Your task to perform on an android device: Open the web browser Image 0: 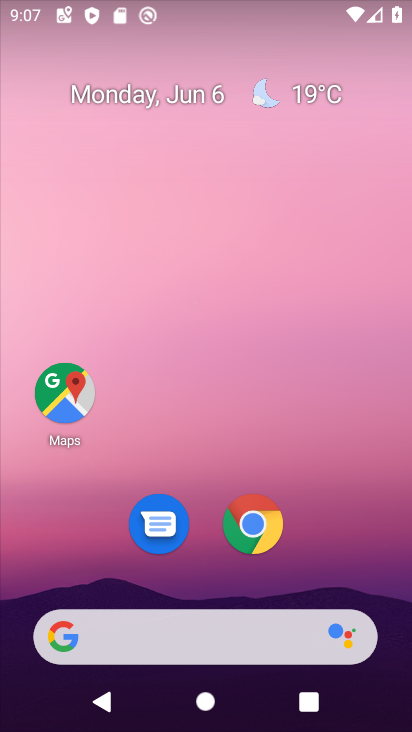
Step 0: click (268, 650)
Your task to perform on an android device: Open the web browser Image 1: 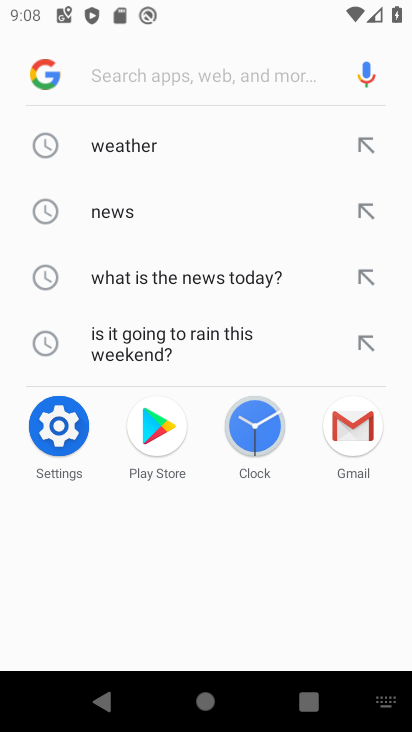
Step 1: task complete